Your task to perform on an android device: Check the weather Image 0: 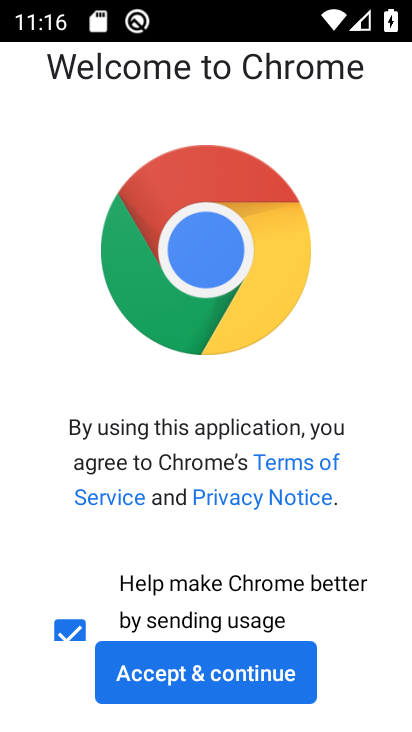
Step 0: press back button
Your task to perform on an android device: Check the weather Image 1: 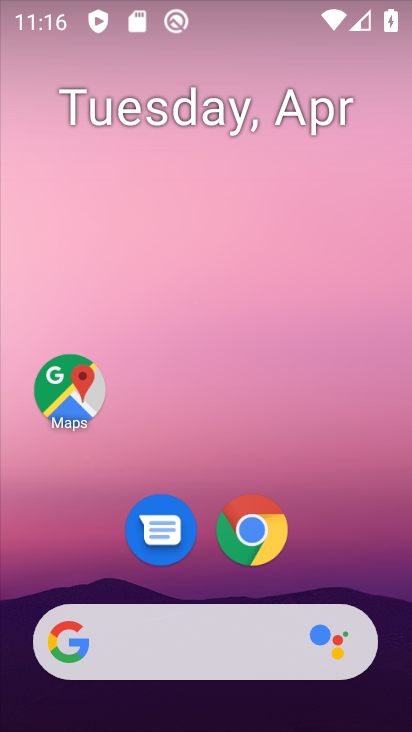
Step 1: drag from (135, 237) to (397, 225)
Your task to perform on an android device: Check the weather Image 2: 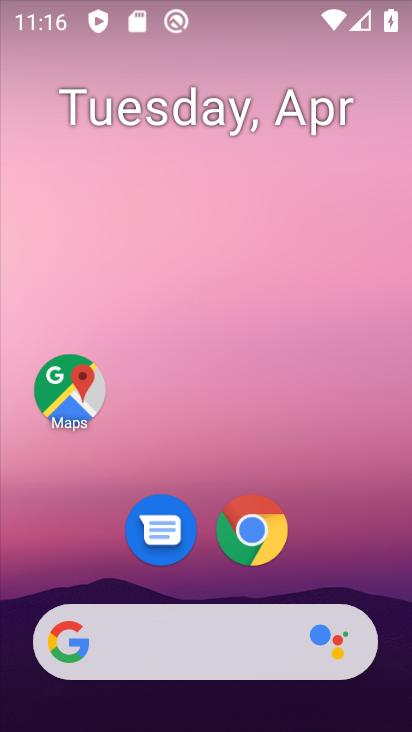
Step 2: click (342, 266)
Your task to perform on an android device: Check the weather Image 3: 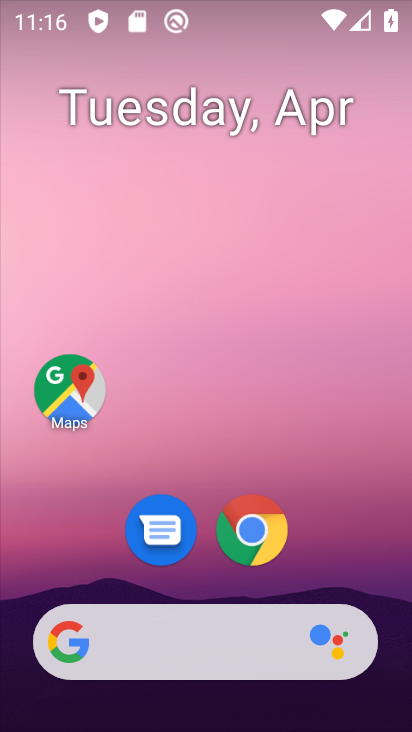
Step 3: click (269, 287)
Your task to perform on an android device: Check the weather Image 4: 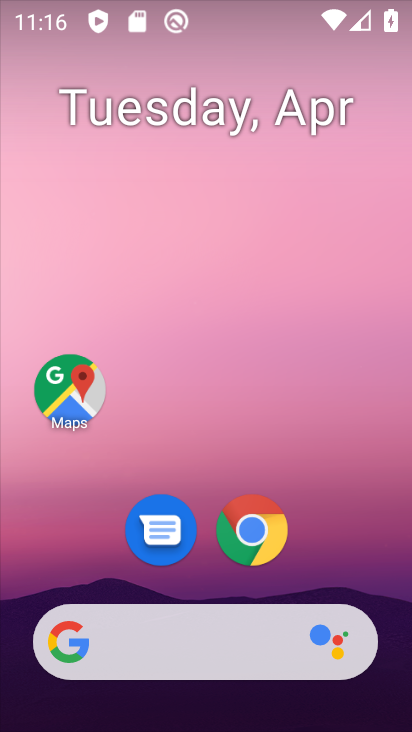
Step 4: click (228, 289)
Your task to perform on an android device: Check the weather Image 5: 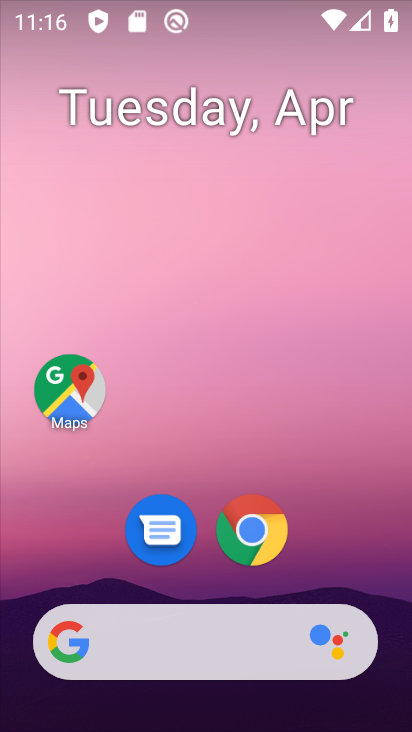
Step 5: drag from (0, 259) to (405, 229)
Your task to perform on an android device: Check the weather Image 6: 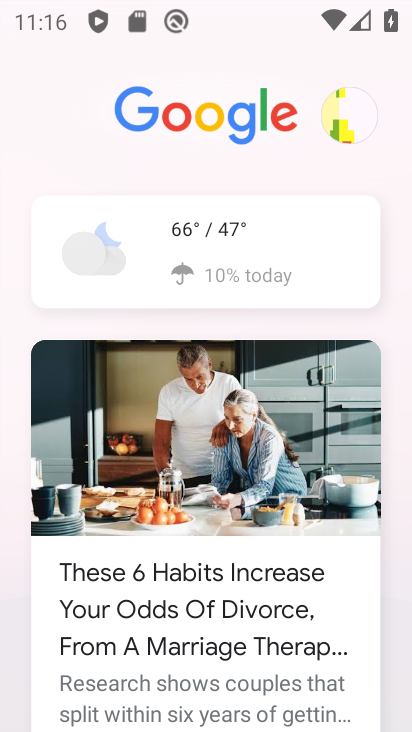
Step 6: click (308, 255)
Your task to perform on an android device: Check the weather Image 7: 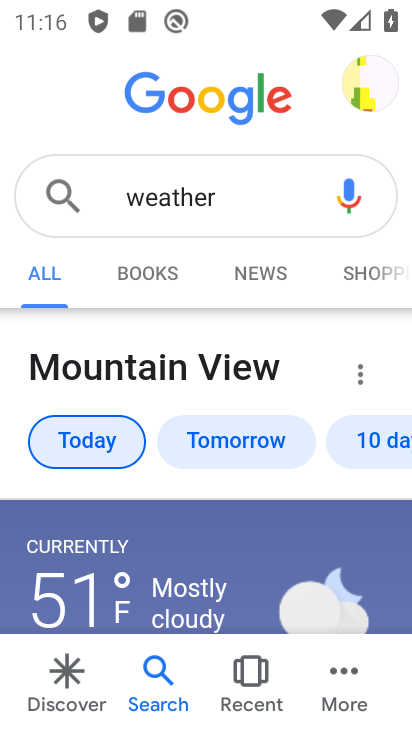
Step 7: task complete